Your task to perform on an android device: Open network settings Image 0: 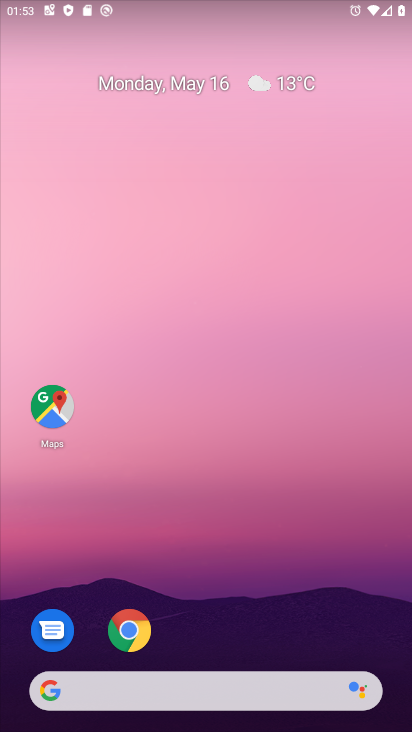
Step 0: drag from (197, 565) to (322, 171)
Your task to perform on an android device: Open network settings Image 1: 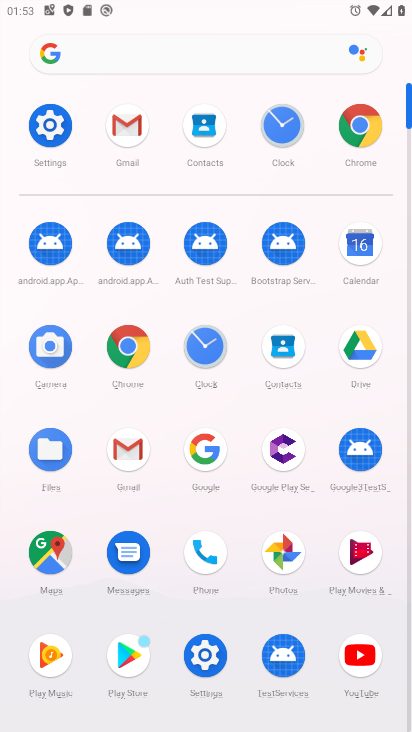
Step 1: click (53, 124)
Your task to perform on an android device: Open network settings Image 2: 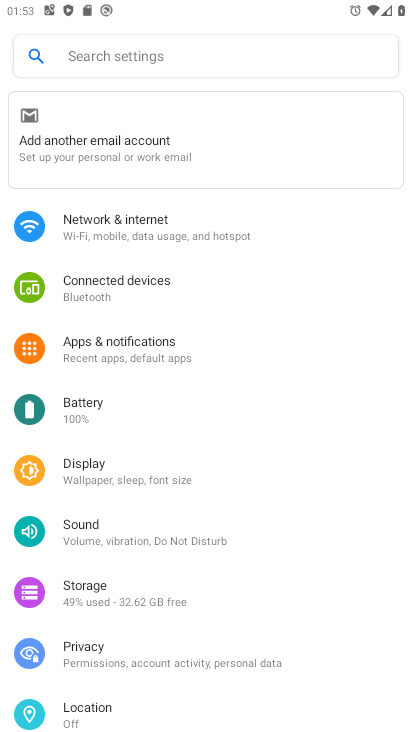
Step 2: click (214, 228)
Your task to perform on an android device: Open network settings Image 3: 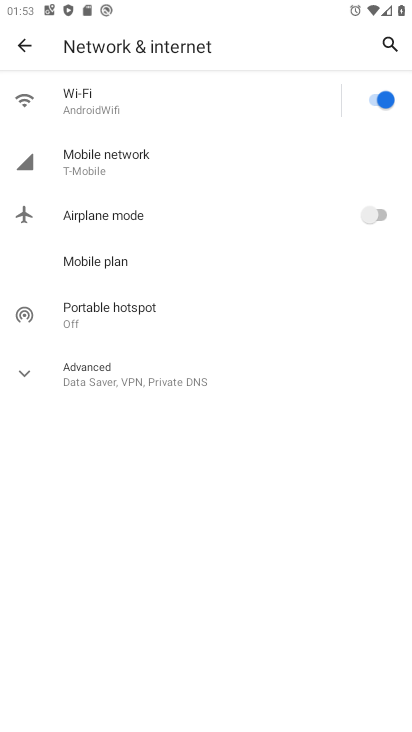
Step 3: task complete